Your task to perform on an android device: Turn off the flashlight Image 0: 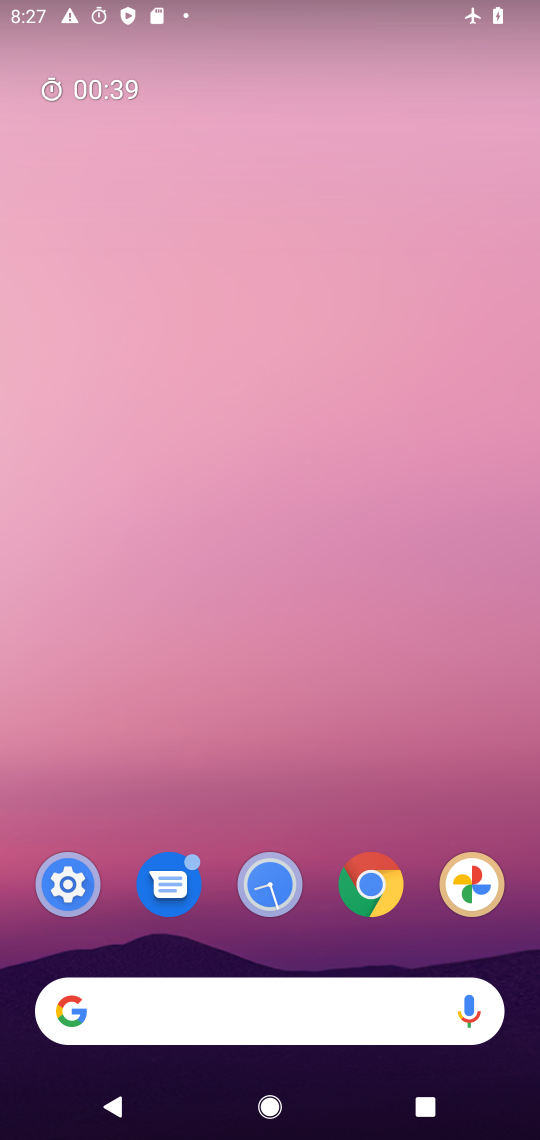
Step 0: press home button
Your task to perform on an android device: Turn off the flashlight Image 1: 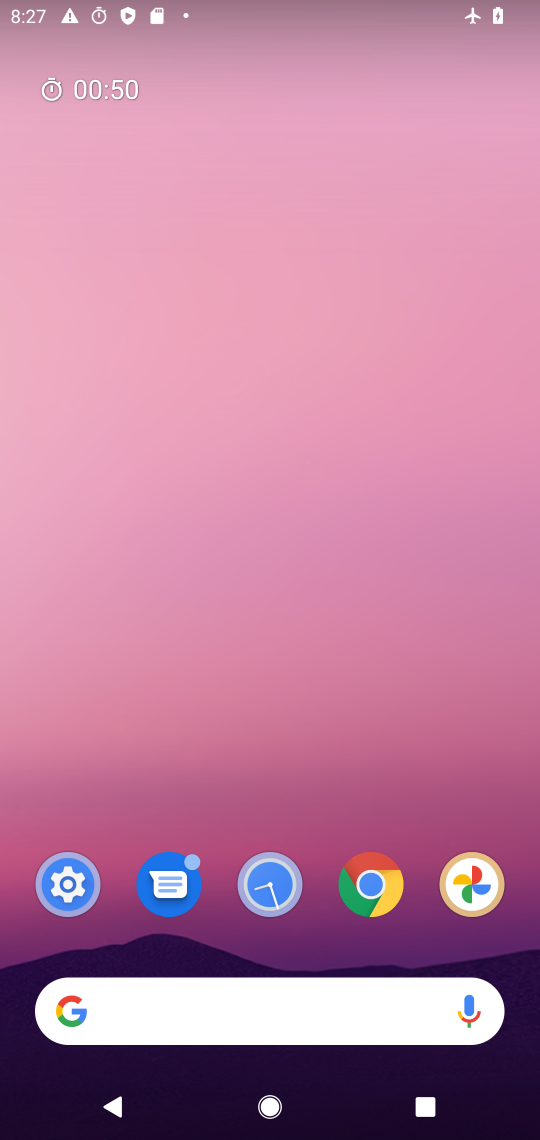
Step 1: drag from (275, 29) to (254, 656)
Your task to perform on an android device: Turn off the flashlight Image 2: 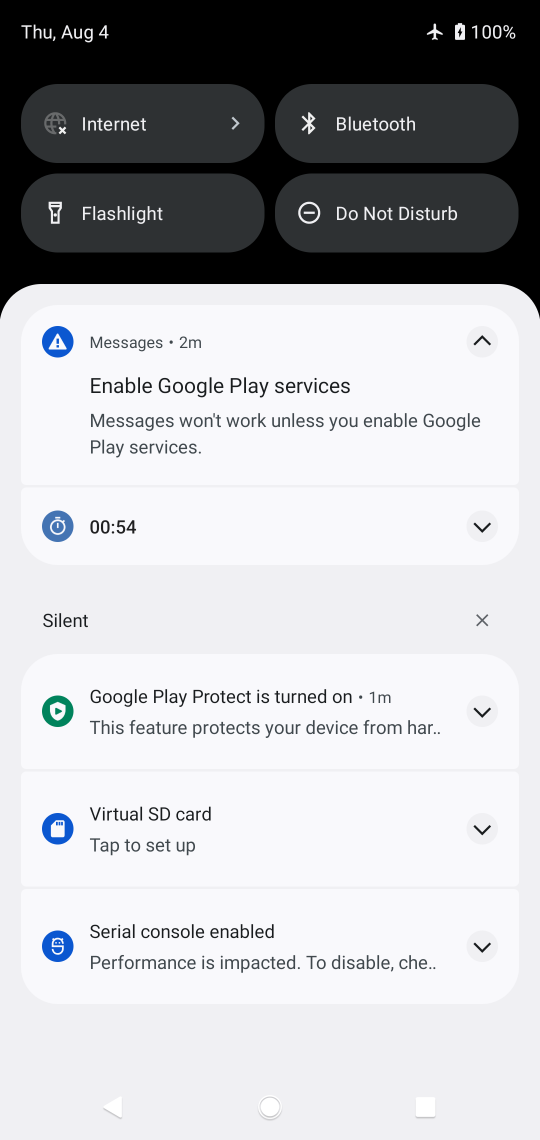
Step 2: click (113, 210)
Your task to perform on an android device: Turn off the flashlight Image 3: 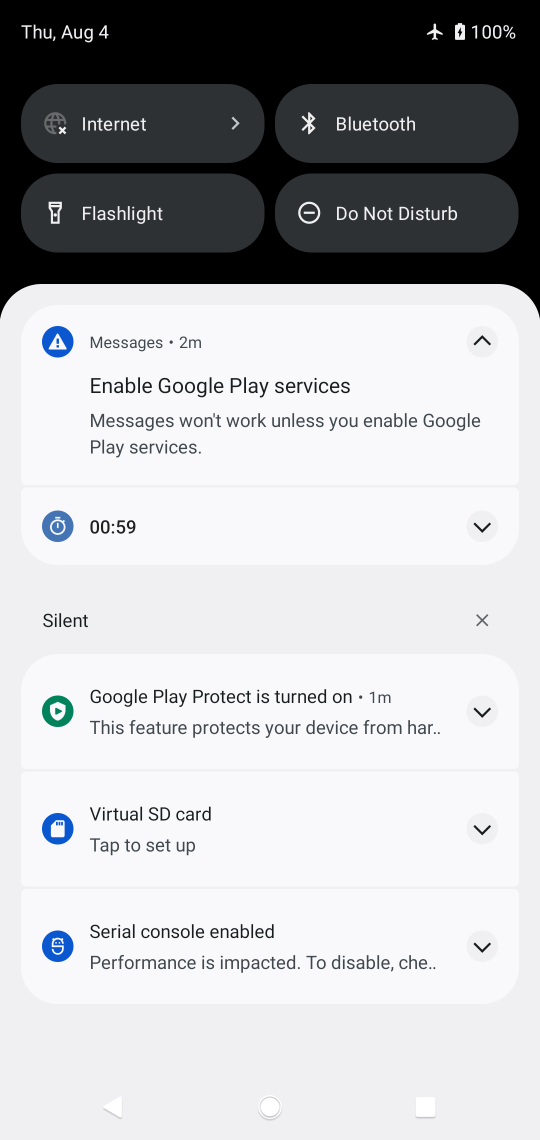
Step 3: task complete